Your task to perform on an android device: check android version Image 0: 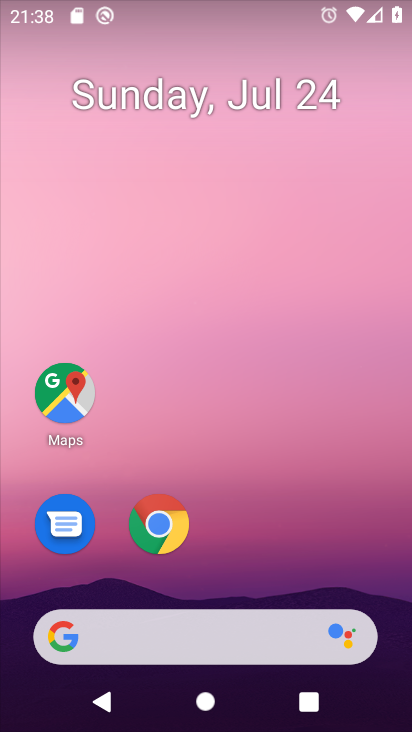
Step 0: drag from (246, 546) to (274, 62)
Your task to perform on an android device: check android version Image 1: 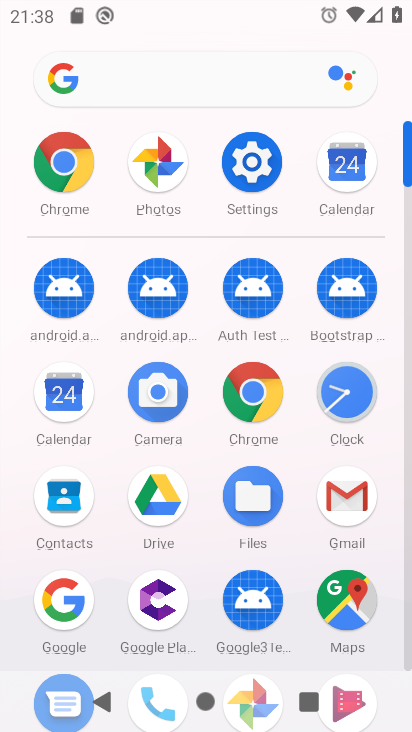
Step 1: click (239, 164)
Your task to perform on an android device: check android version Image 2: 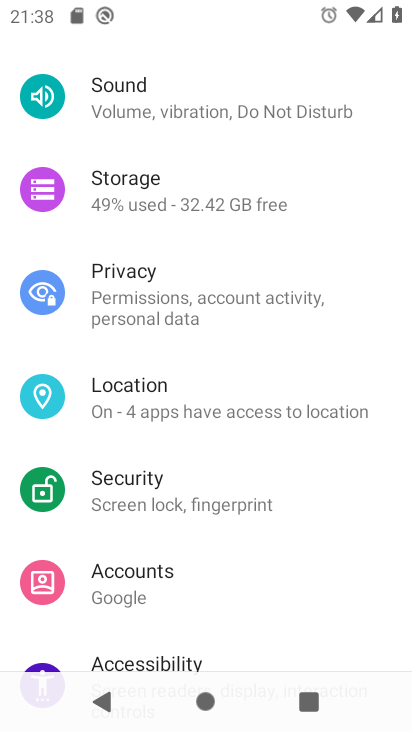
Step 2: drag from (250, 549) to (285, 7)
Your task to perform on an android device: check android version Image 3: 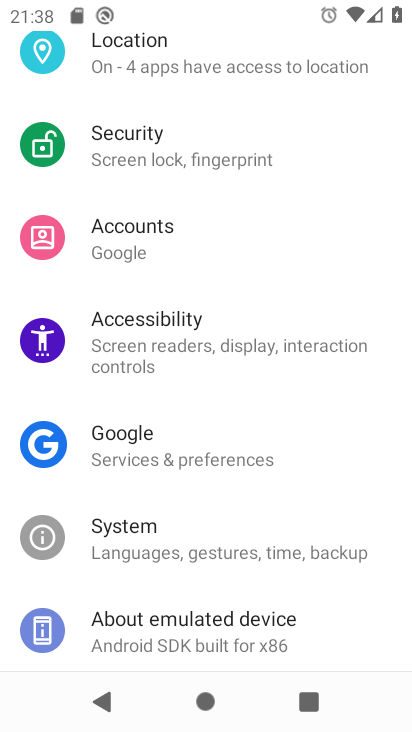
Step 3: click (181, 614)
Your task to perform on an android device: check android version Image 4: 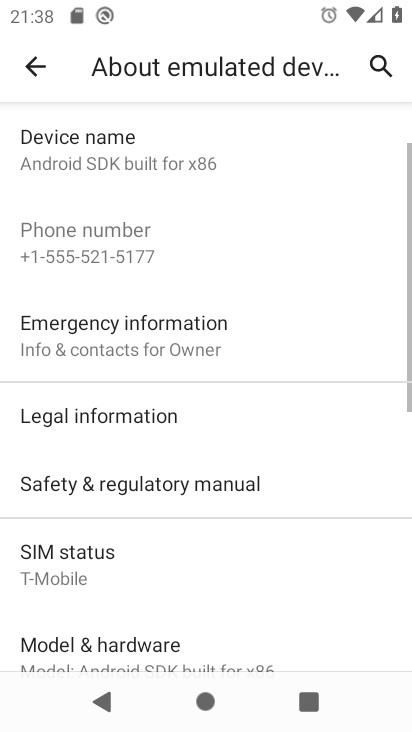
Step 4: task complete